Your task to perform on an android device: turn on the 12-hour format for clock Image 0: 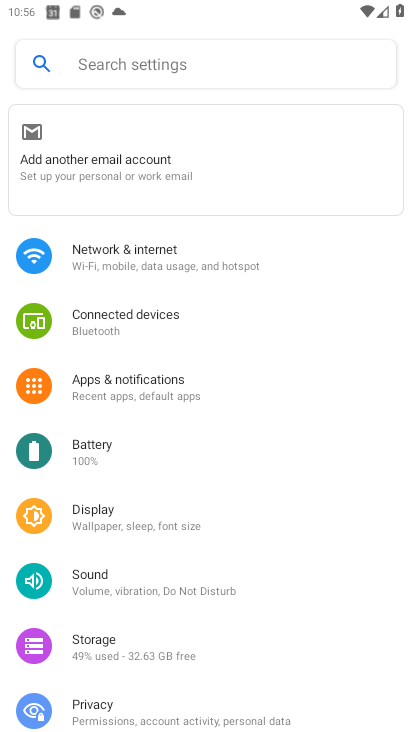
Step 0: press back button
Your task to perform on an android device: turn on the 12-hour format for clock Image 1: 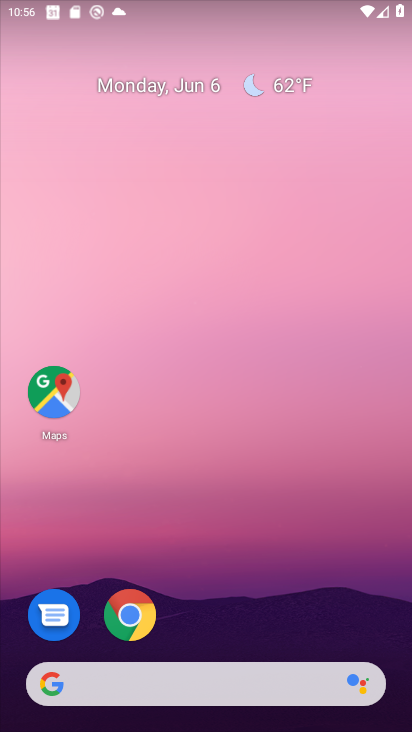
Step 1: drag from (237, 669) to (177, 111)
Your task to perform on an android device: turn on the 12-hour format for clock Image 2: 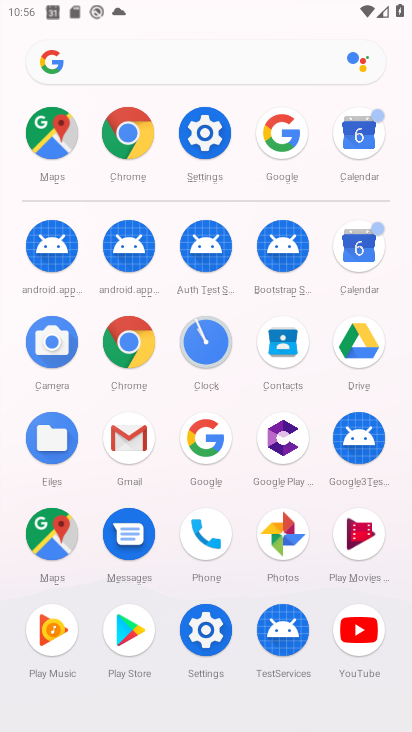
Step 2: click (211, 338)
Your task to perform on an android device: turn on the 12-hour format for clock Image 3: 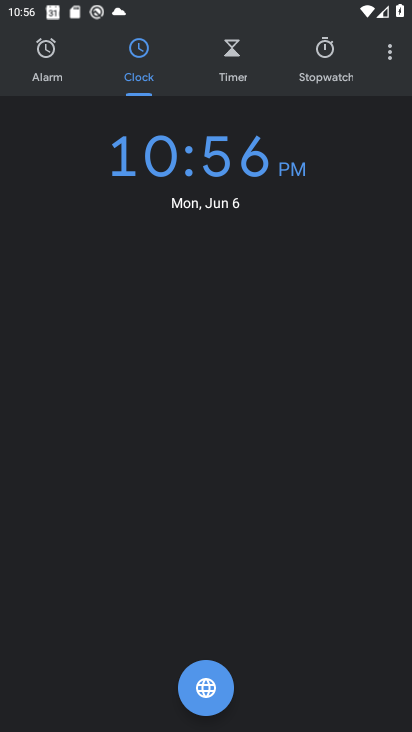
Step 3: click (389, 59)
Your task to perform on an android device: turn on the 12-hour format for clock Image 4: 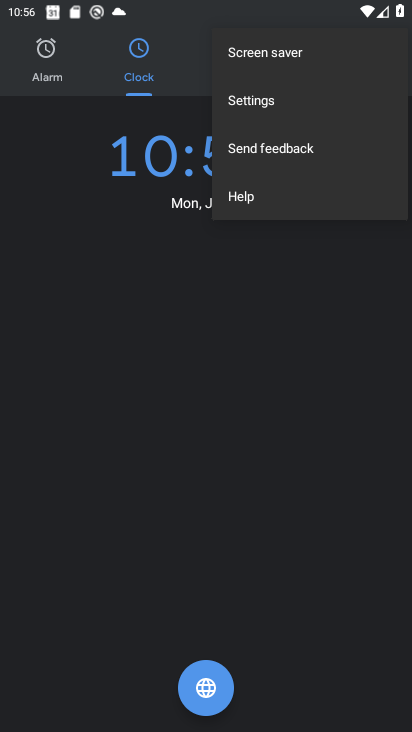
Step 4: click (252, 100)
Your task to perform on an android device: turn on the 12-hour format for clock Image 5: 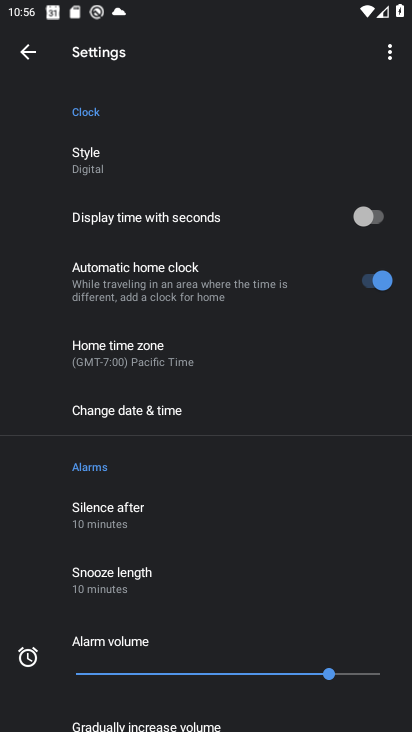
Step 5: click (139, 411)
Your task to perform on an android device: turn on the 12-hour format for clock Image 6: 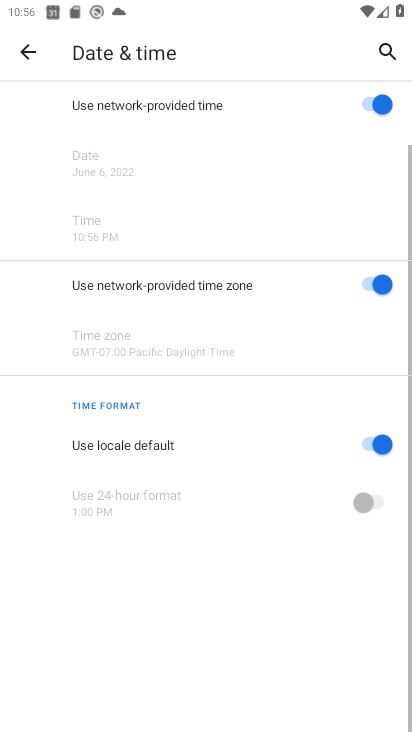
Step 6: task complete